Your task to perform on an android device: Show the shopping cart on target.com. Search for "logitech g910" on target.com, select the first entry, add it to the cart, then select checkout. Image 0: 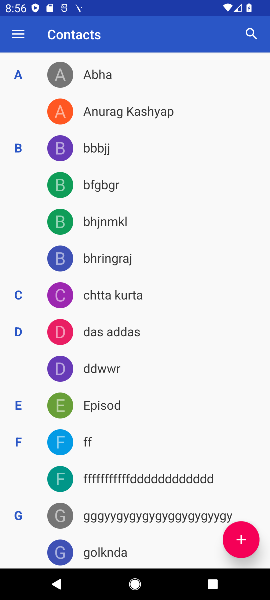
Step 0: press home button
Your task to perform on an android device: Show the shopping cart on target.com. Search for "logitech g910" on target.com, select the first entry, add it to the cart, then select checkout. Image 1: 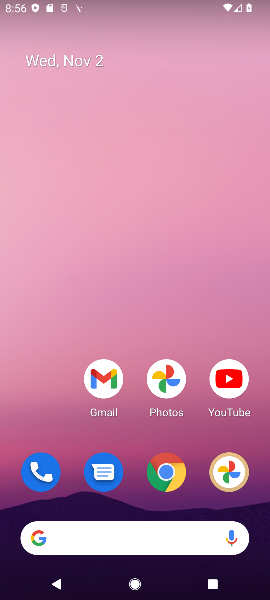
Step 1: click (163, 485)
Your task to perform on an android device: Show the shopping cart on target.com. Search for "logitech g910" on target.com, select the first entry, add it to the cart, then select checkout. Image 2: 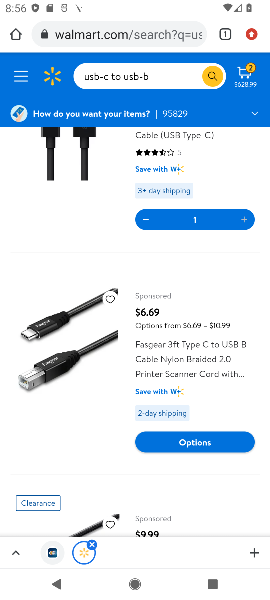
Step 2: click (147, 35)
Your task to perform on an android device: Show the shopping cart on target.com. Search for "logitech g910" on target.com, select the first entry, add it to the cart, then select checkout. Image 3: 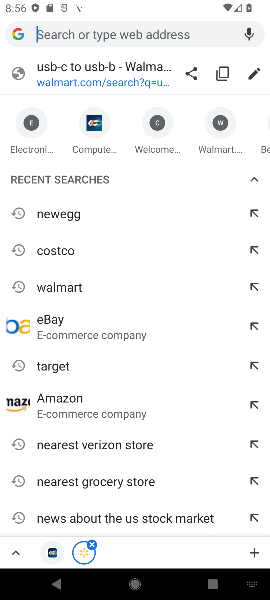
Step 3: click (62, 365)
Your task to perform on an android device: Show the shopping cart on target.com. Search for "logitech g910" on target.com, select the first entry, add it to the cart, then select checkout. Image 4: 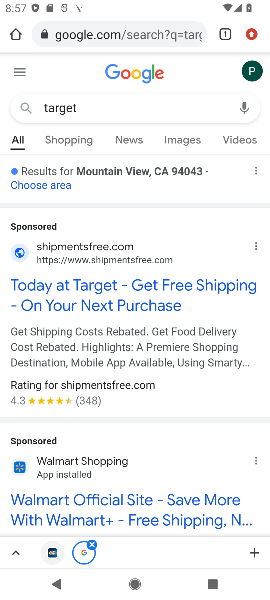
Step 4: click (143, 285)
Your task to perform on an android device: Show the shopping cart on target.com. Search for "logitech g910" on target.com, select the first entry, add it to the cart, then select checkout. Image 5: 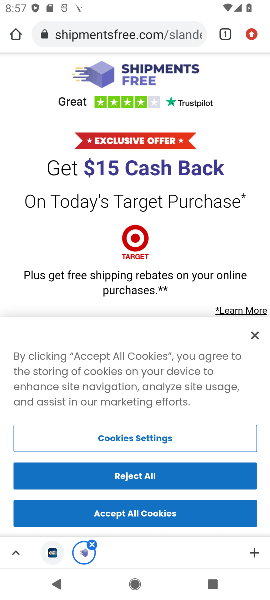
Step 5: task complete